Your task to perform on an android device: Open ESPN.com Image 0: 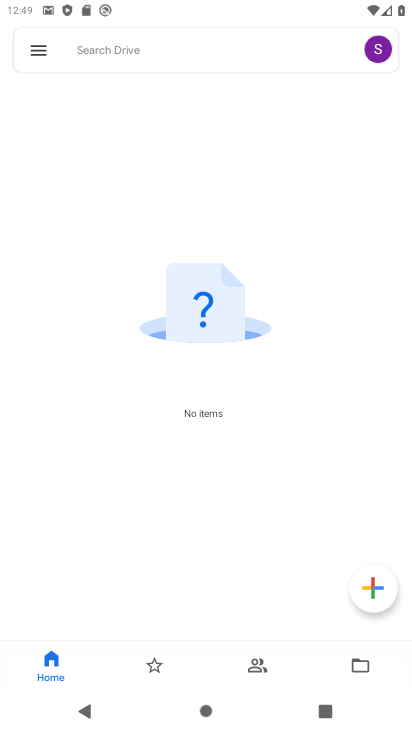
Step 0: press home button
Your task to perform on an android device: Open ESPN.com Image 1: 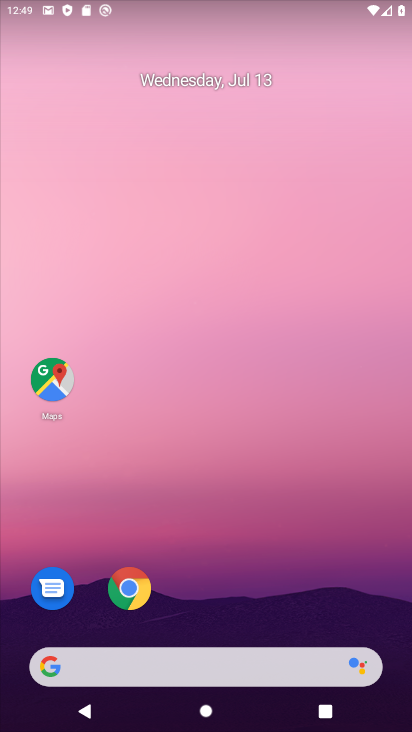
Step 1: click (90, 593)
Your task to perform on an android device: Open ESPN.com Image 2: 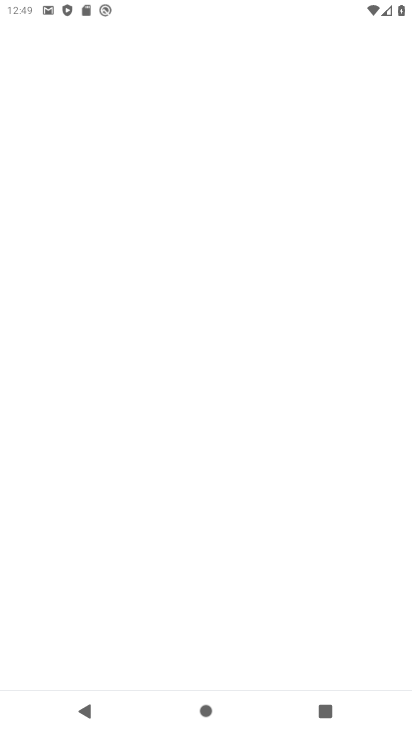
Step 2: press home button
Your task to perform on an android device: Open ESPN.com Image 3: 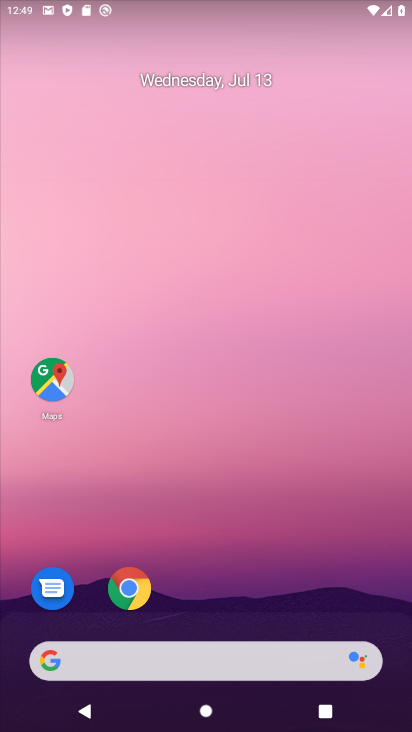
Step 3: click (133, 601)
Your task to perform on an android device: Open ESPN.com Image 4: 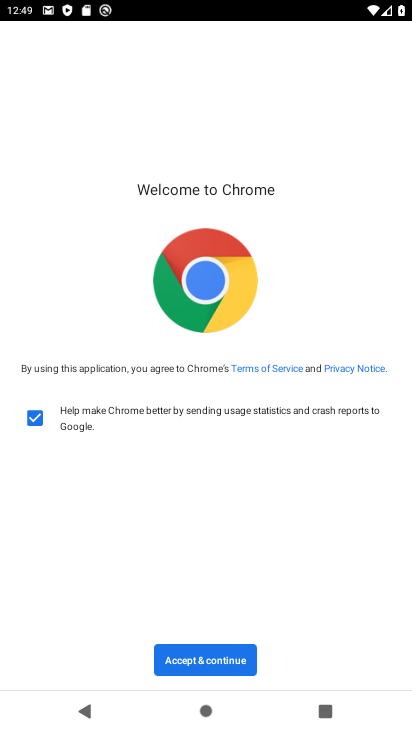
Step 4: click (190, 650)
Your task to perform on an android device: Open ESPN.com Image 5: 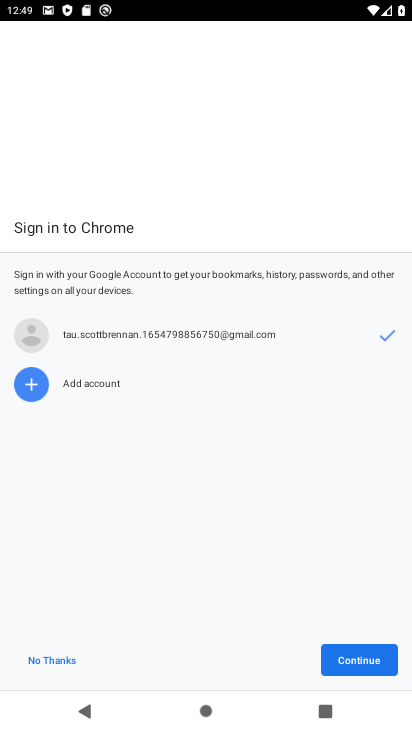
Step 5: click (364, 665)
Your task to perform on an android device: Open ESPN.com Image 6: 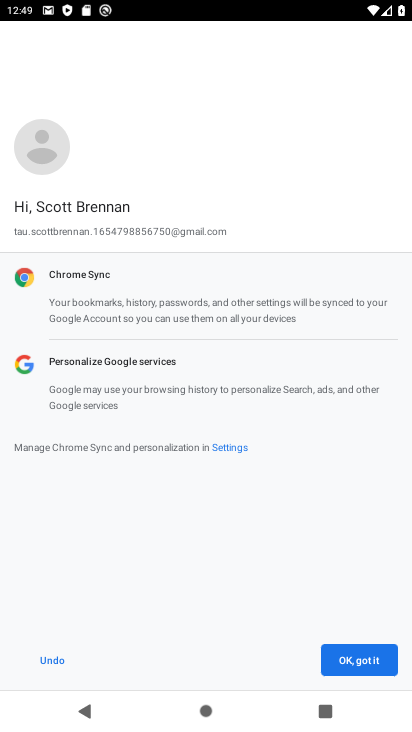
Step 6: click (355, 655)
Your task to perform on an android device: Open ESPN.com Image 7: 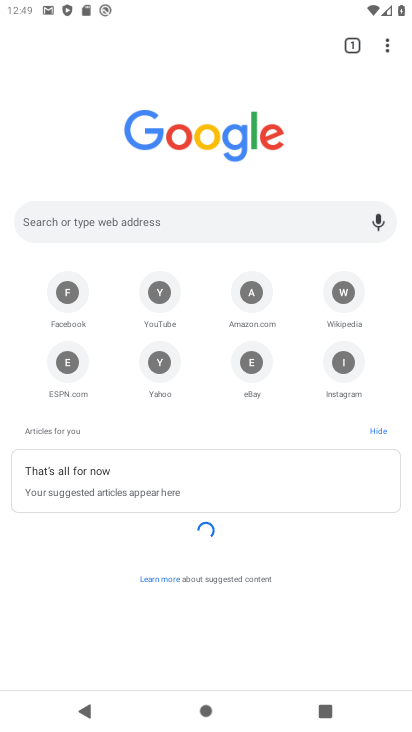
Step 7: click (149, 241)
Your task to perform on an android device: Open ESPN.com Image 8: 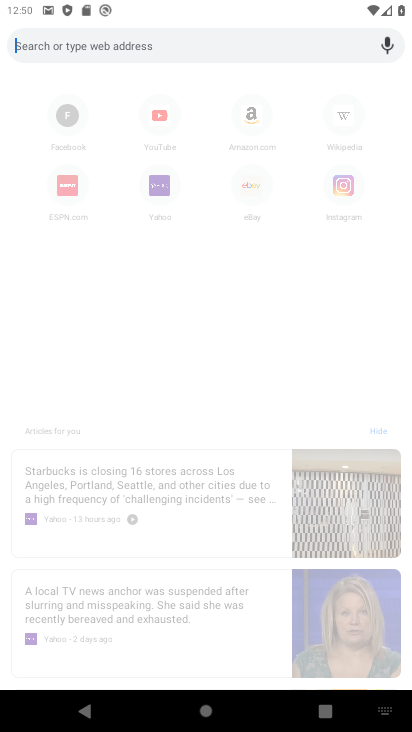
Step 8: type "ESPN.com"
Your task to perform on an android device: Open ESPN.com Image 9: 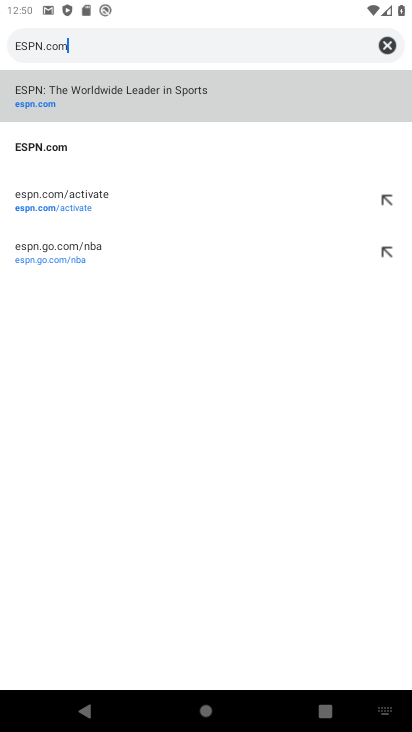
Step 9: type ""
Your task to perform on an android device: Open ESPN.com Image 10: 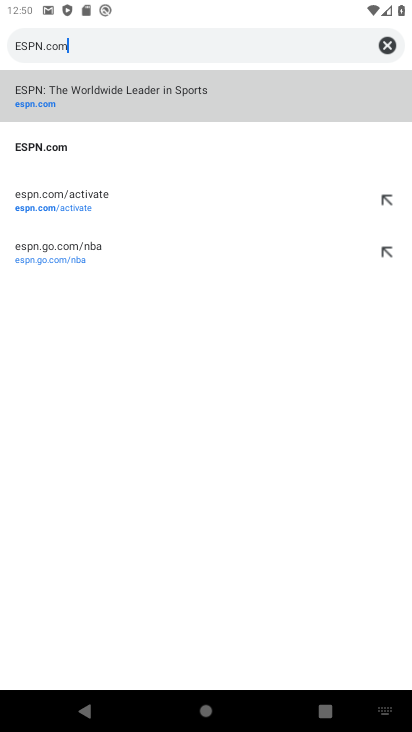
Step 10: click (138, 105)
Your task to perform on an android device: Open ESPN.com Image 11: 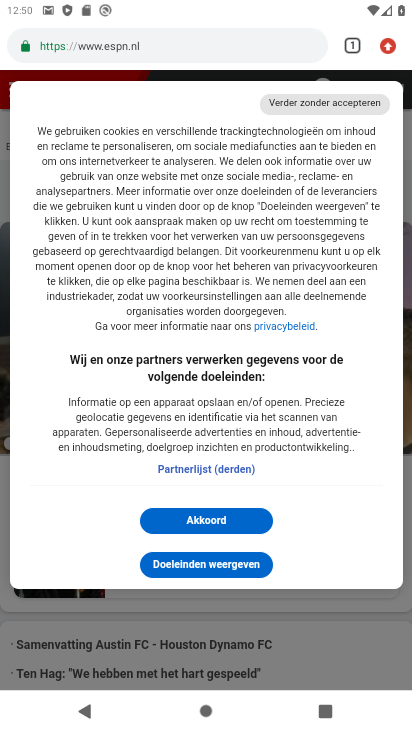
Step 11: task complete